Your task to perform on an android device: snooze an email in the gmail app Image 0: 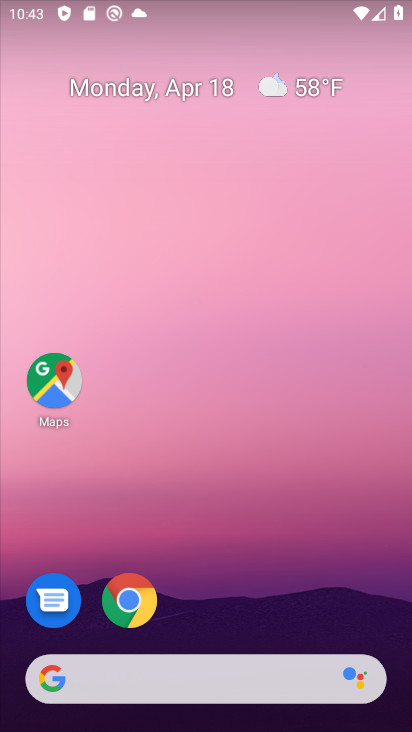
Step 0: drag from (201, 537) to (140, 72)
Your task to perform on an android device: snooze an email in the gmail app Image 1: 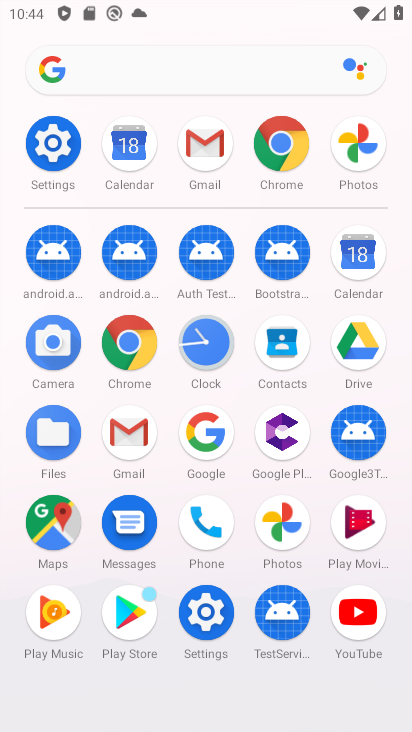
Step 1: click (139, 428)
Your task to perform on an android device: snooze an email in the gmail app Image 2: 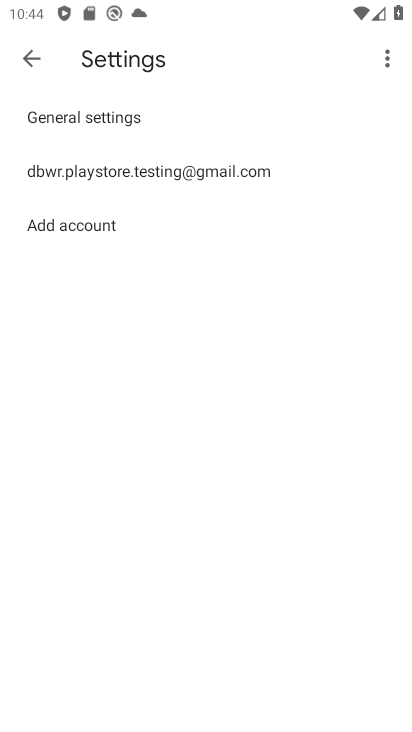
Step 2: click (23, 53)
Your task to perform on an android device: snooze an email in the gmail app Image 3: 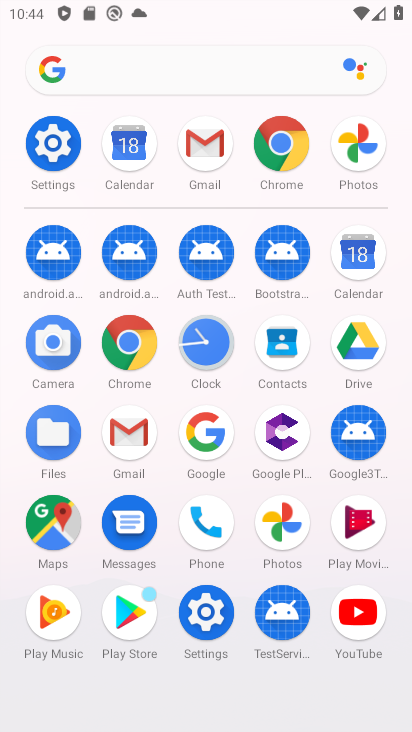
Step 3: click (123, 445)
Your task to perform on an android device: snooze an email in the gmail app Image 4: 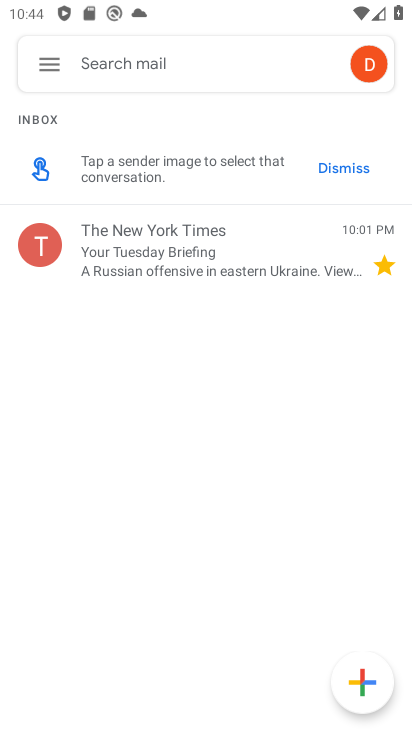
Step 4: click (172, 240)
Your task to perform on an android device: snooze an email in the gmail app Image 5: 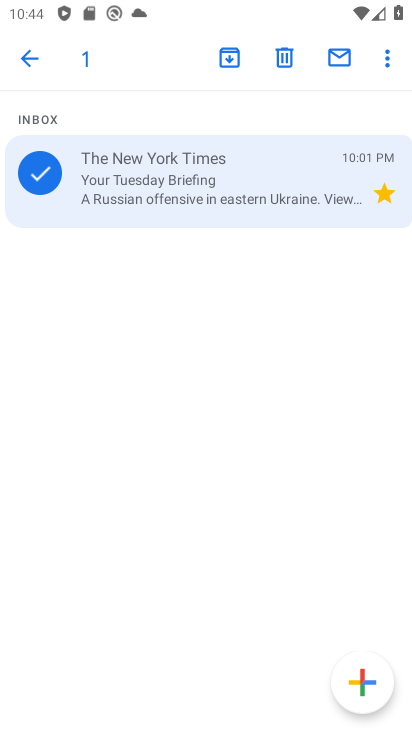
Step 5: click (387, 56)
Your task to perform on an android device: snooze an email in the gmail app Image 6: 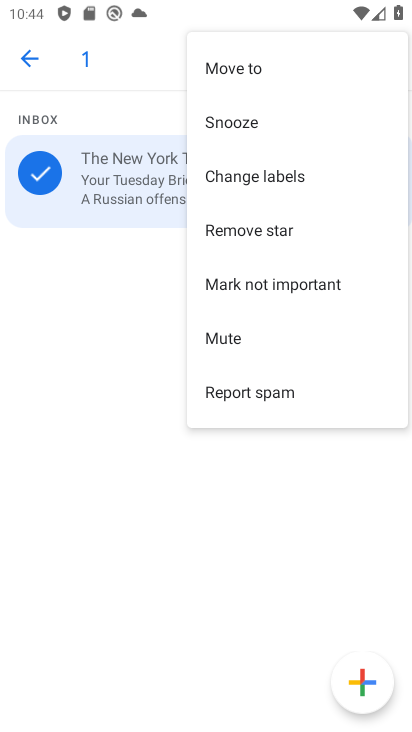
Step 6: click (250, 122)
Your task to perform on an android device: snooze an email in the gmail app Image 7: 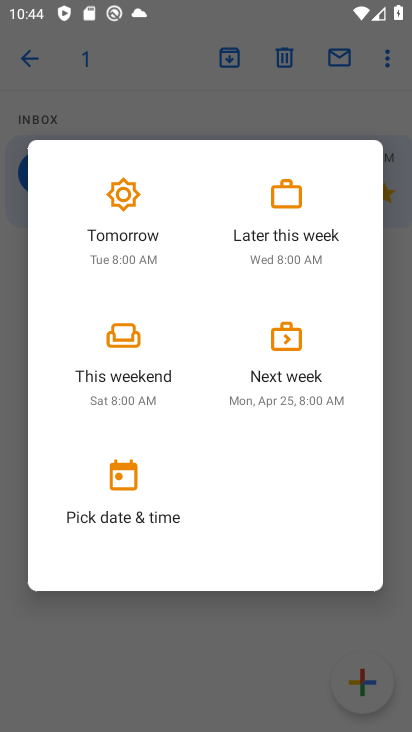
Step 7: click (117, 201)
Your task to perform on an android device: snooze an email in the gmail app Image 8: 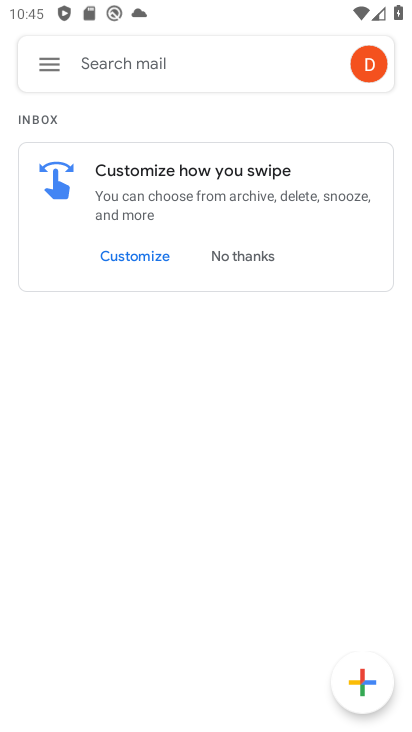
Step 8: task complete